Your task to perform on an android device: set an alarm Image 0: 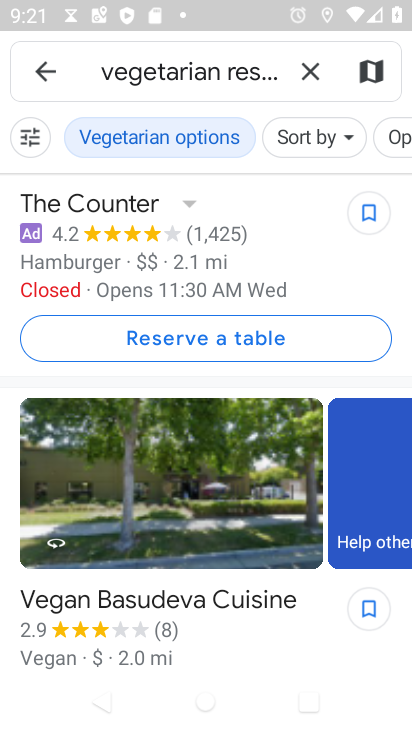
Step 0: press home button
Your task to perform on an android device: set an alarm Image 1: 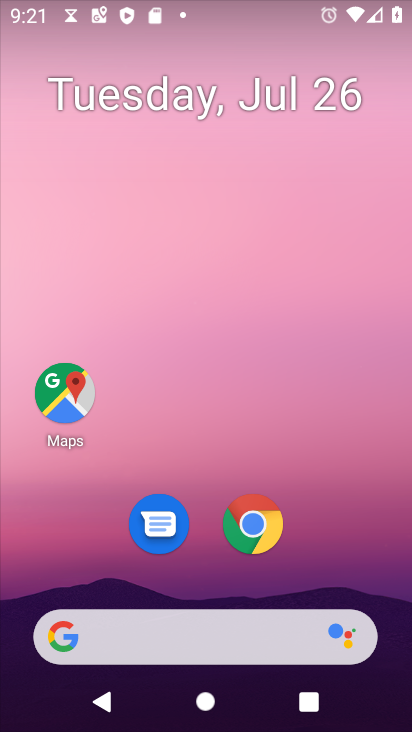
Step 1: drag from (229, 603) to (321, 244)
Your task to perform on an android device: set an alarm Image 2: 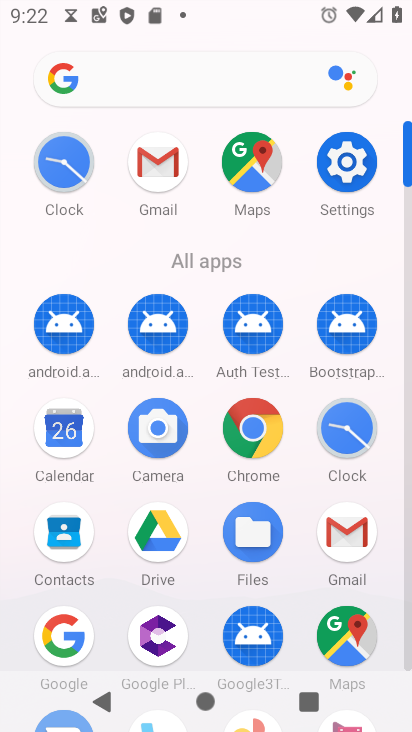
Step 2: click (341, 429)
Your task to perform on an android device: set an alarm Image 3: 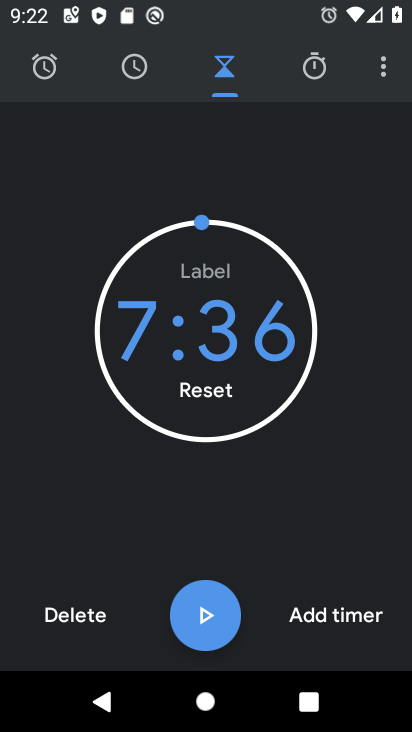
Step 3: click (52, 71)
Your task to perform on an android device: set an alarm Image 4: 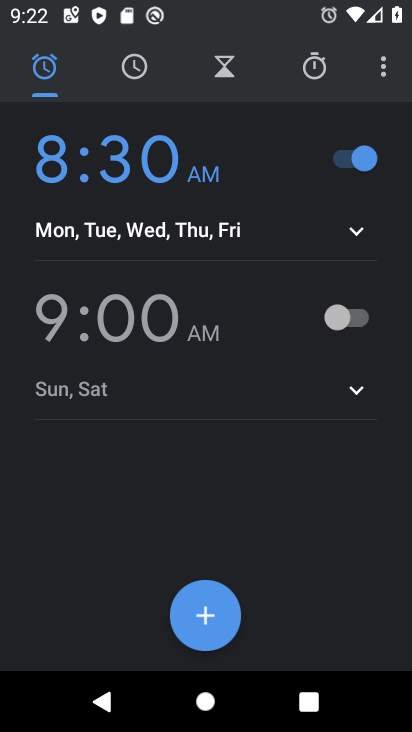
Step 4: click (354, 314)
Your task to perform on an android device: set an alarm Image 5: 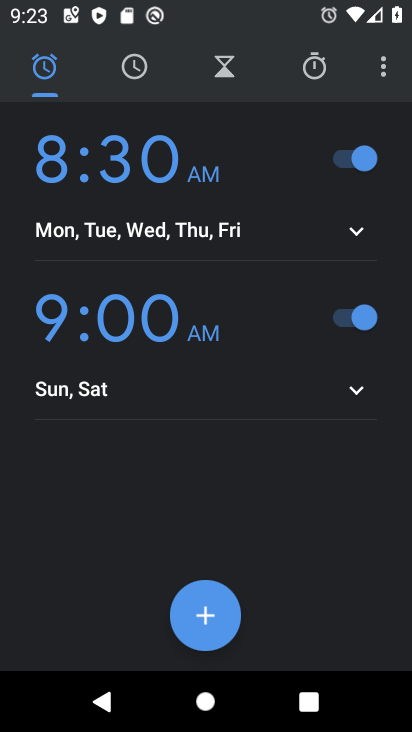
Step 5: task complete